Your task to perform on an android device: toggle priority inbox in the gmail app Image 0: 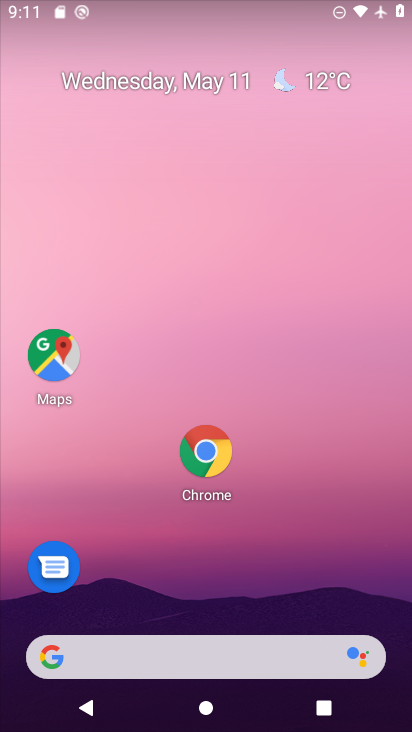
Step 0: press home button
Your task to perform on an android device: toggle priority inbox in the gmail app Image 1: 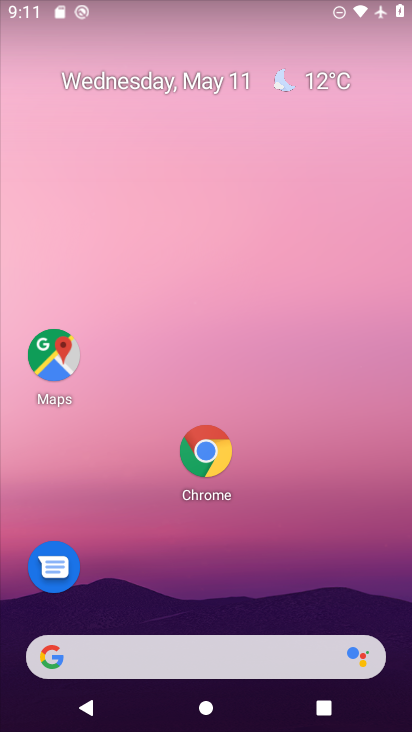
Step 1: drag from (119, 659) to (248, 238)
Your task to perform on an android device: toggle priority inbox in the gmail app Image 2: 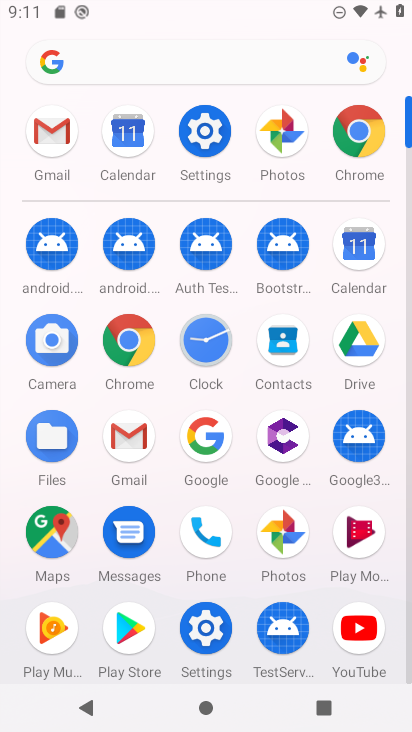
Step 2: click (140, 445)
Your task to perform on an android device: toggle priority inbox in the gmail app Image 3: 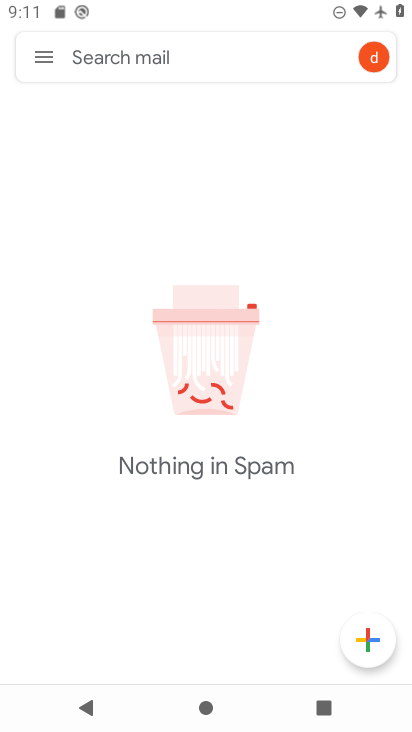
Step 3: click (45, 58)
Your task to perform on an android device: toggle priority inbox in the gmail app Image 4: 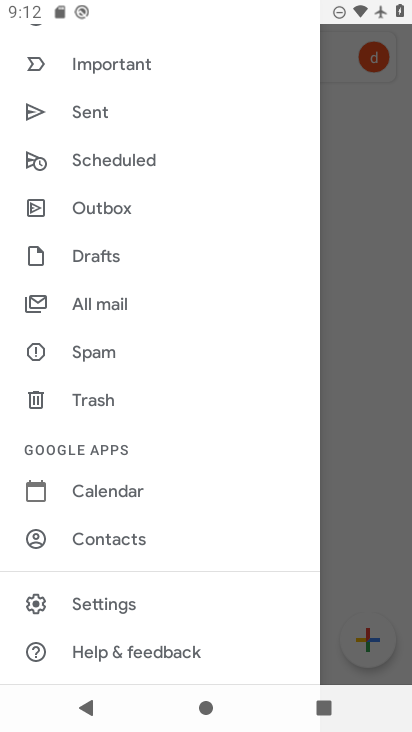
Step 4: click (97, 608)
Your task to perform on an android device: toggle priority inbox in the gmail app Image 5: 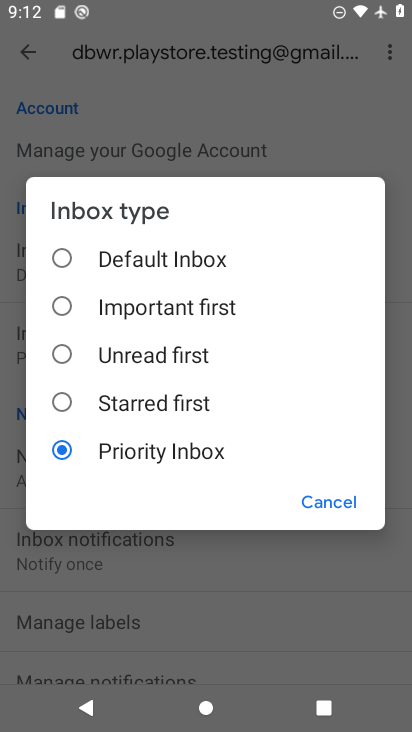
Step 5: click (55, 253)
Your task to perform on an android device: toggle priority inbox in the gmail app Image 6: 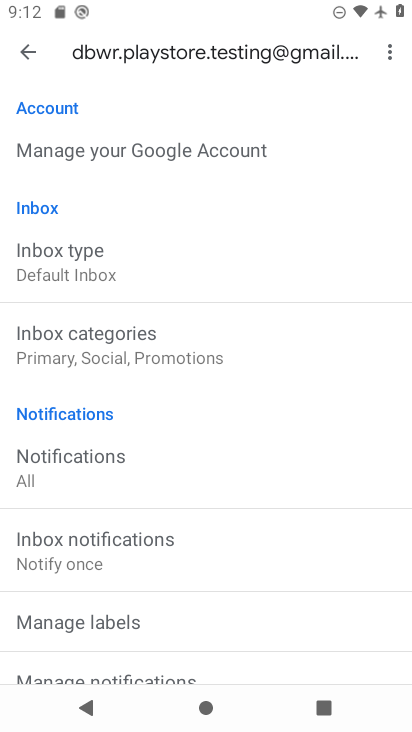
Step 6: task complete